Your task to perform on an android device: find snoozed emails in the gmail app Image 0: 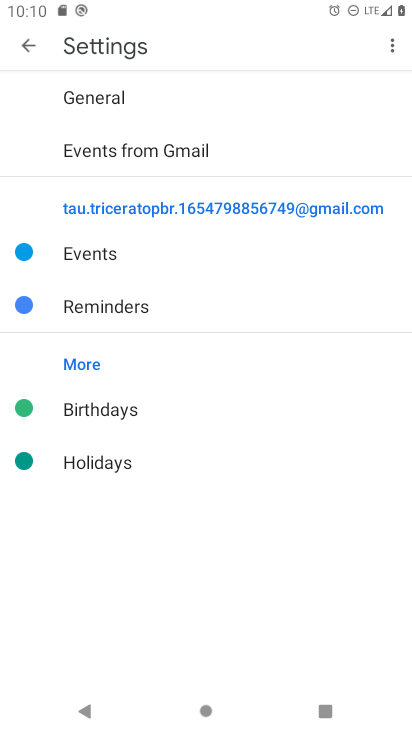
Step 0: press home button
Your task to perform on an android device: find snoozed emails in the gmail app Image 1: 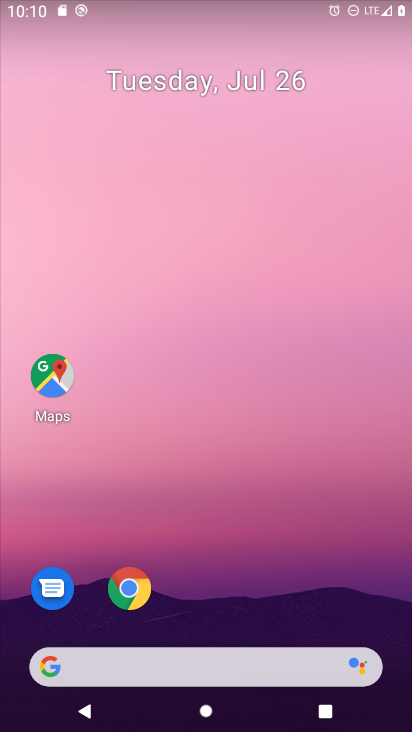
Step 1: drag from (214, 631) to (213, 236)
Your task to perform on an android device: find snoozed emails in the gmail app Image 2: 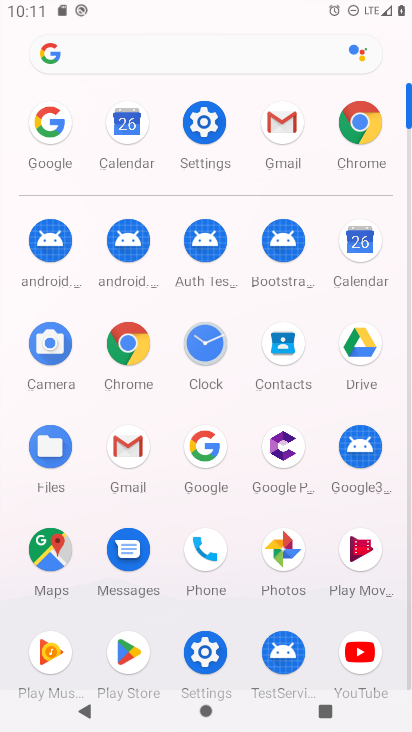
Step 2: click (134, 455)
Your task to perform on an android device: find snoozed emails in the gmail app Image 3: 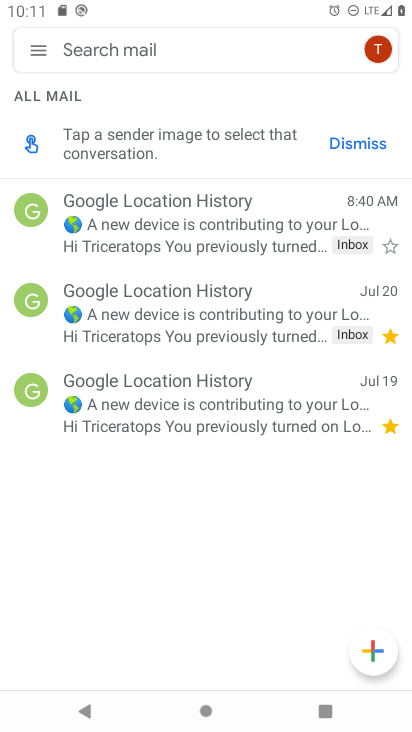
Step 3: click (35, 58)
Your task to perform on an android device: find snoozed emails in the gmail app Image 4: 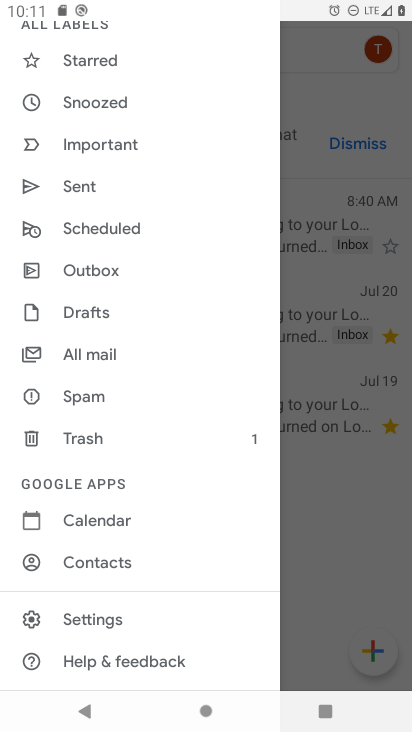
Step 4: click (122, 108)
Your task to perform on an android device: find snoozed emails in the gmail app Image 5: 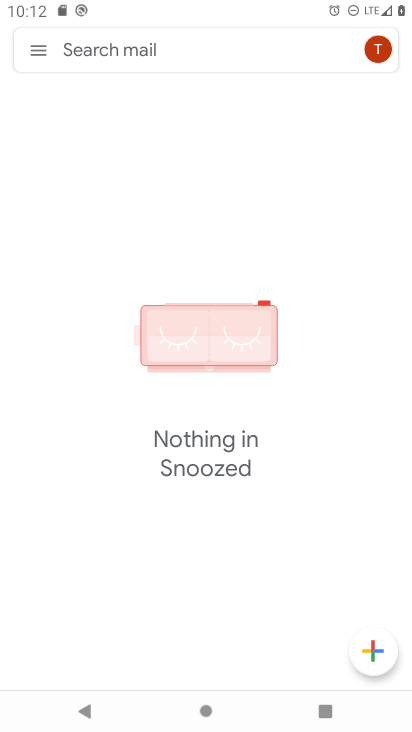
Step 5: task complete